Your task to perform on an android device: Open a new Chrome incognito window Image 0: 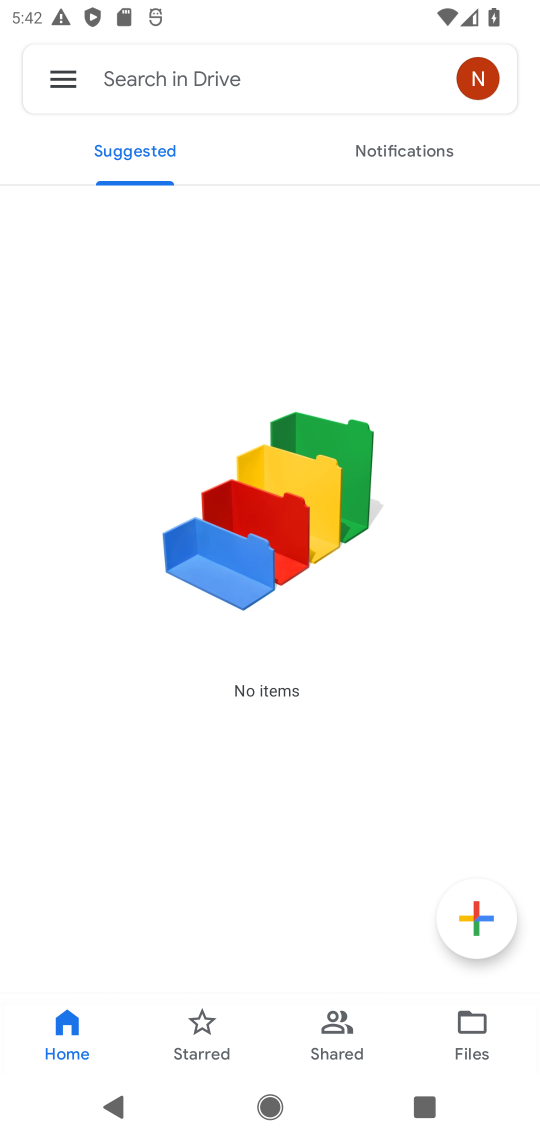
Step 0: press home button
Your task to perform on an android device: Open a new Chrome incognito window Image 1: 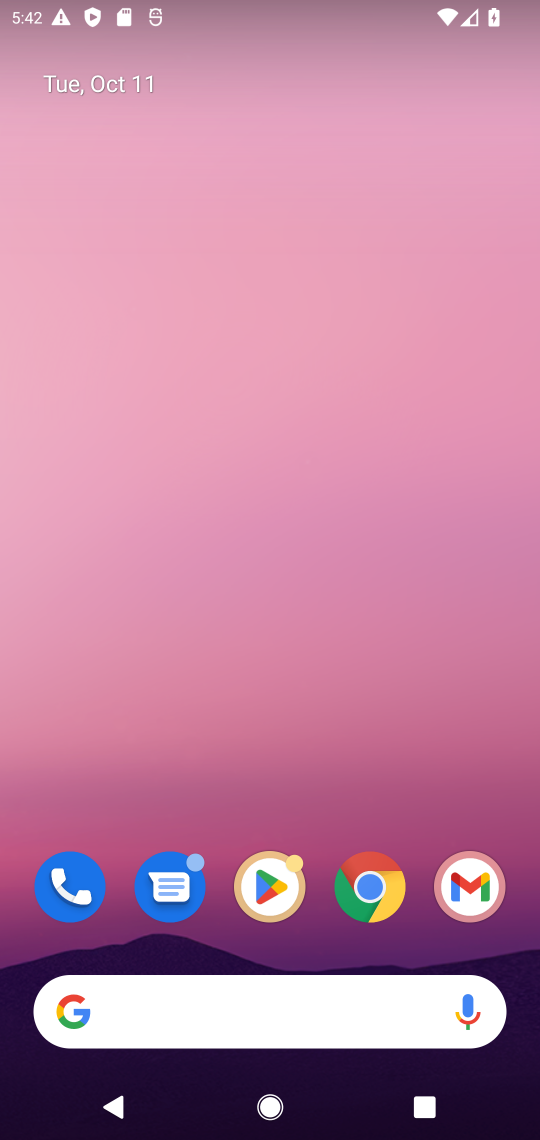
Step 1: click (240, 1000)
Your task to perform on an android device: Open a new Chrome incognito window Image 2: 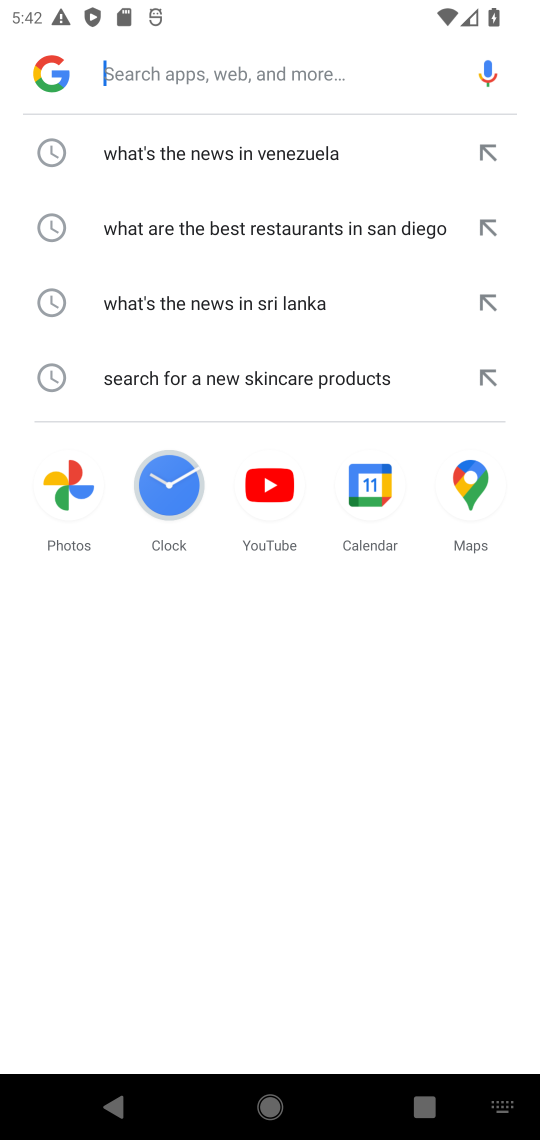
Step 2: press back button
Your task to perform on an android device: Open a new Chrome incognito window Image 3: 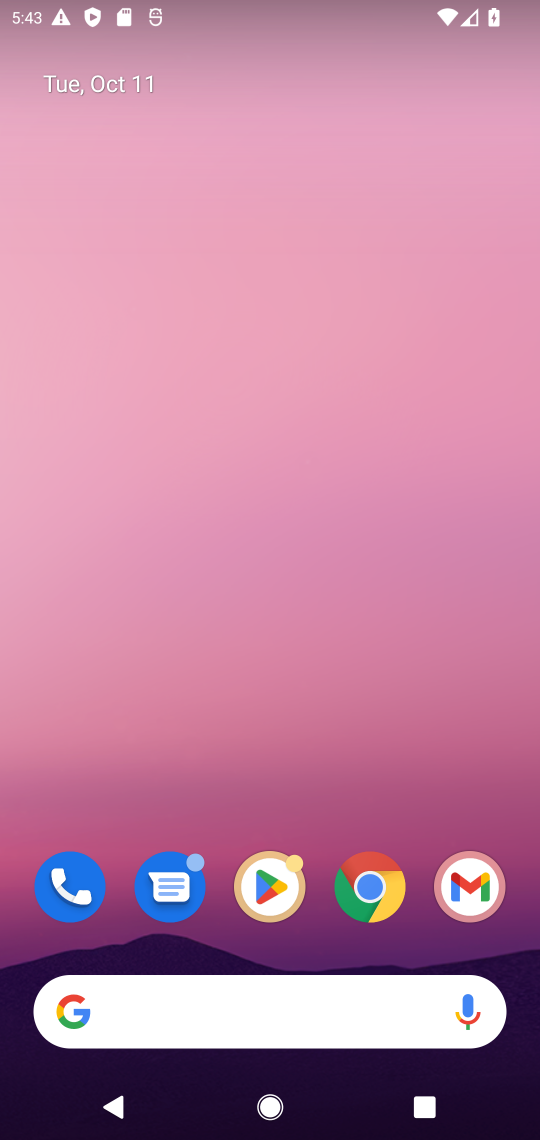
Step 3: click (372, 883)
Your task to perform on an android device: Open a new Chrome incognito window Image 4: 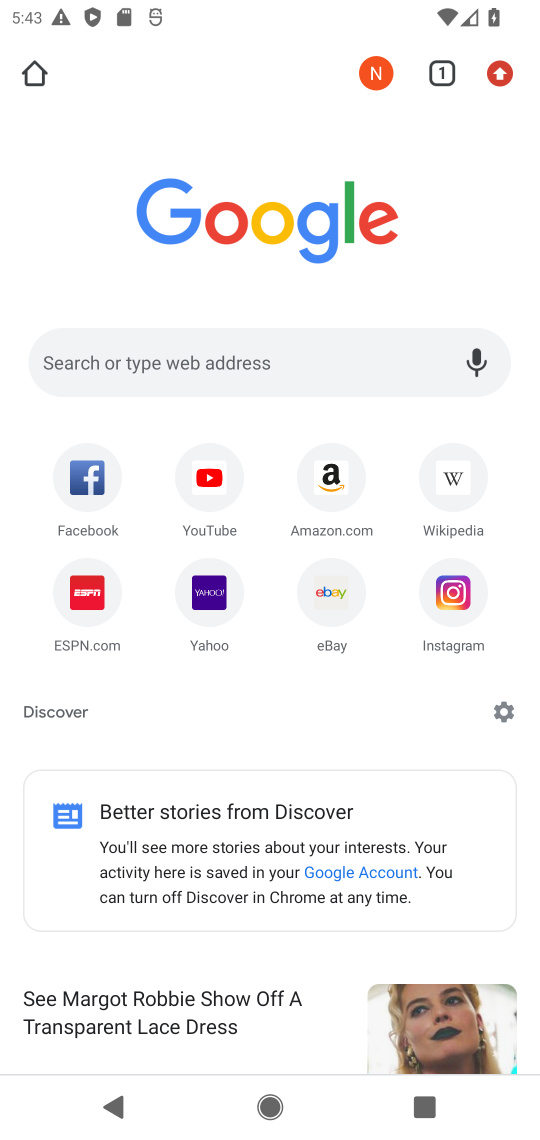
Step 4: click (491, 75)
Your task to perform on an android device: Open a new Chrome incognito window Image 5: 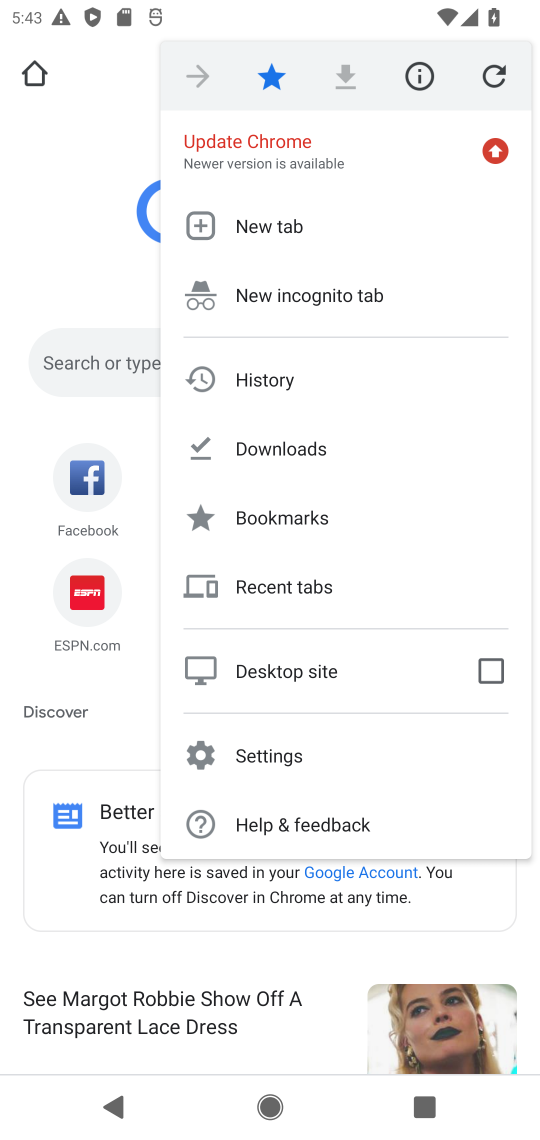
Step 5: click (209, 230)
Your task to perform on an android device: Open a new Chrome incognito window Image 6: 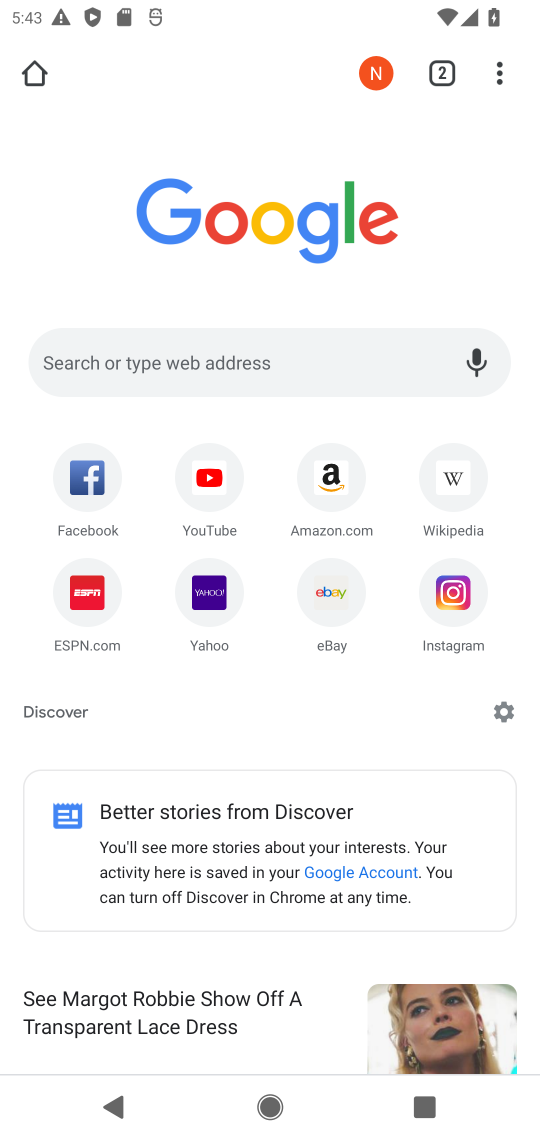
Step 6: click (505, 79)
Your task to perform on an android device: Open a new Chrome incognito window Image 7: 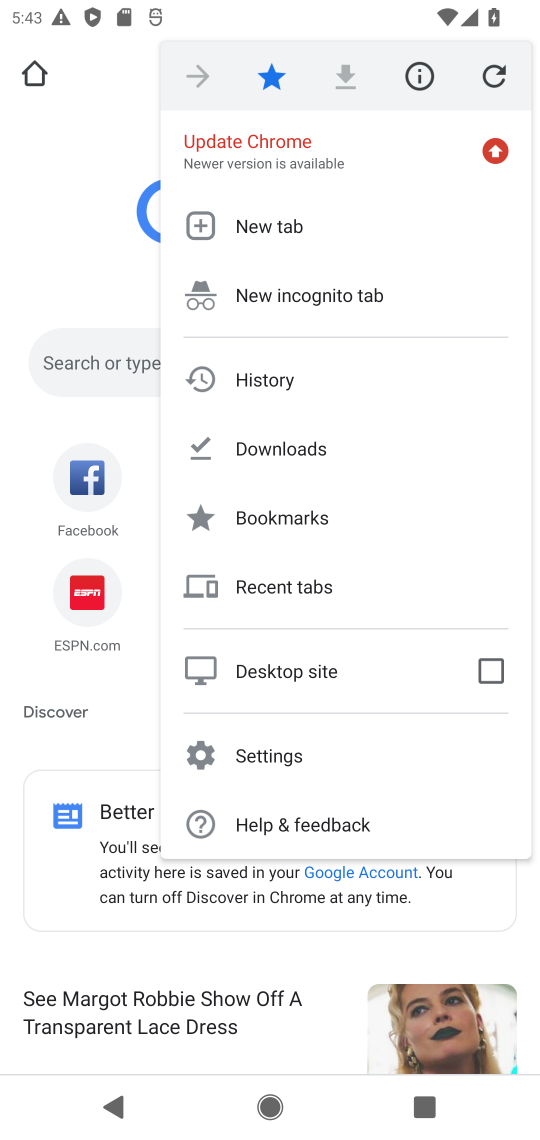
Step 7: click (290, 292)
Your task to perform on an android device: Open a new Chrome incognito window Image 8: 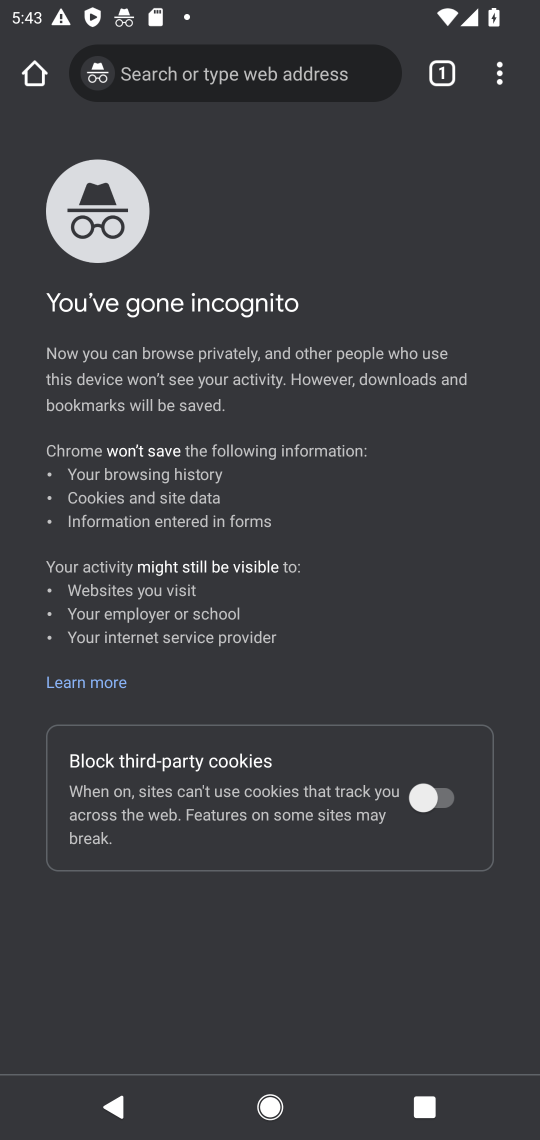
Step 8: task complete